Your task to perform on an android device: Open internet settings Image 0: 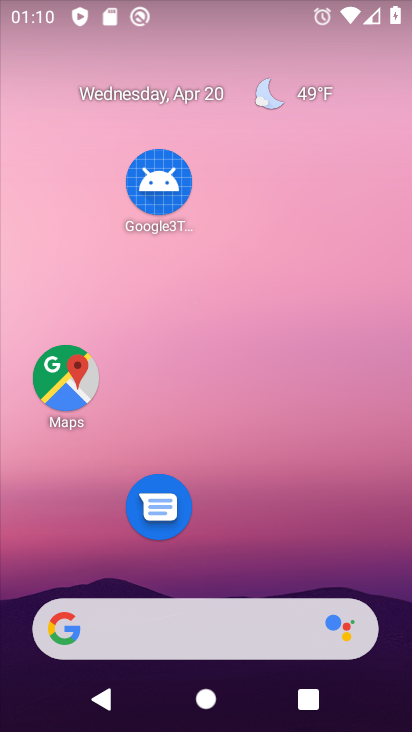
Step 0: drag from (258, 538) to (217, 13)
Your task to perform on an android device: Open internet settings Image 1: 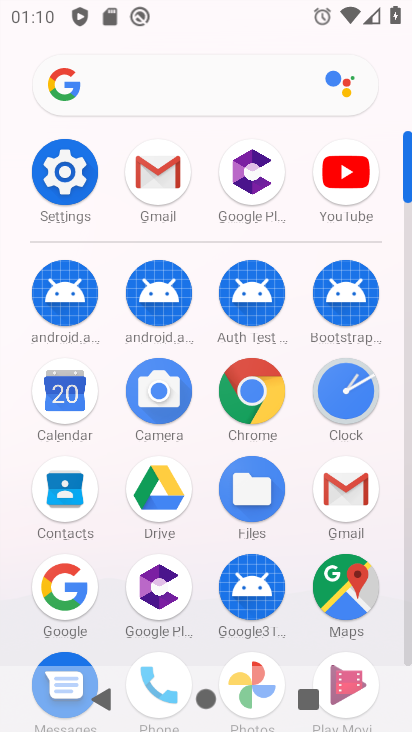
Step 1: click (65, 176)
Your task to perform on an android device: Open internet settings Image 2: 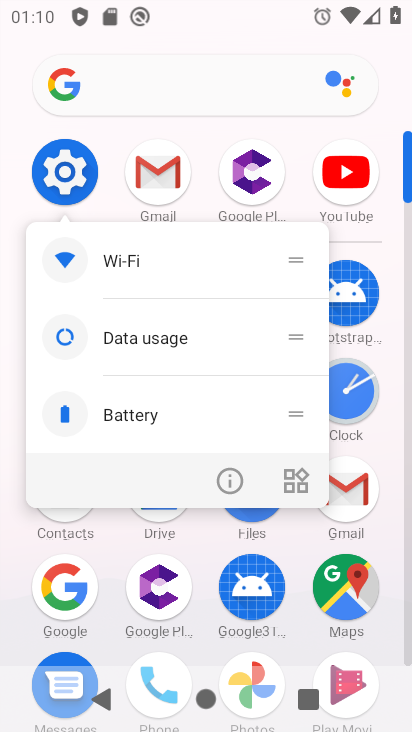
Step 2: click (75, 174)
Your task to perform on an android device: Open internet settings Image 3: 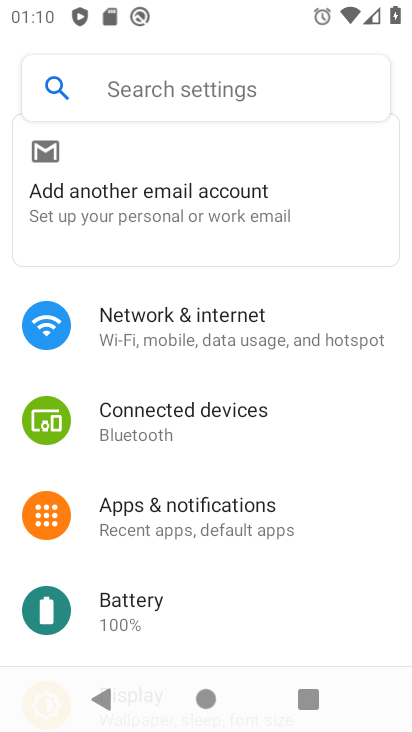
Step 3: click (187, 317)
Your task to perform on an android device: Open internet settings Image 4: 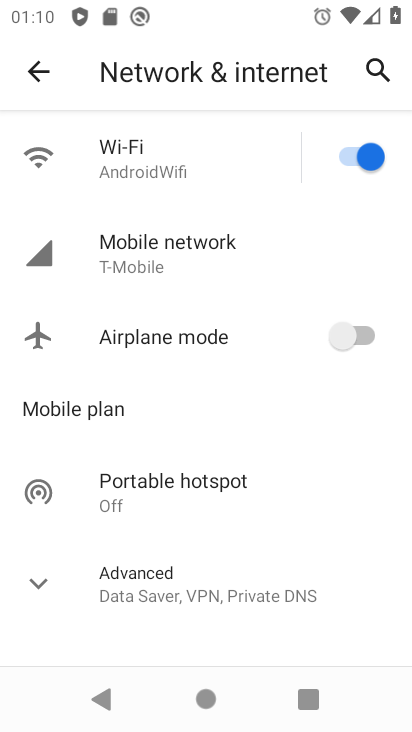
Step 4: click (164, 252)
Your task to perform on an android device: Open internet settings Image 5: 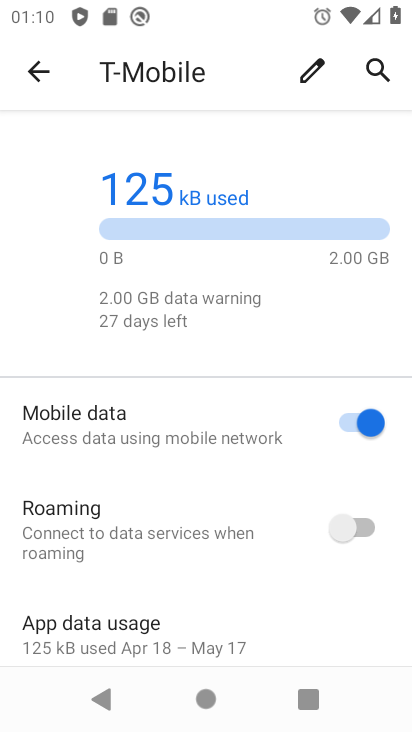
Step 5: task complete